Your task to perform on an android device: Go to Amazon Image 0: 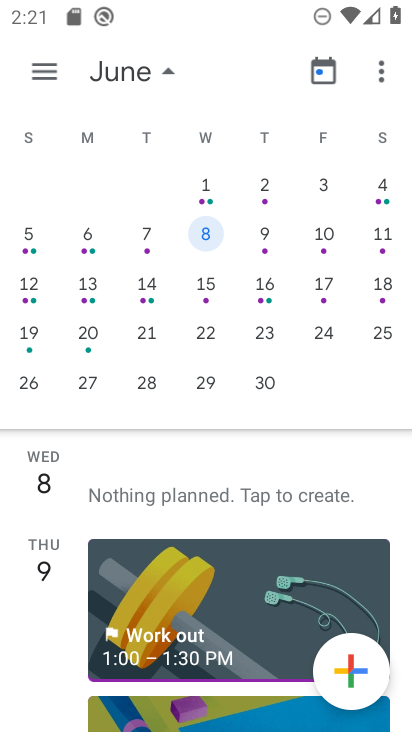
Step 0: drag from (332, 590) to (134, 28)
Your task to perform on an android device: Go to Amazon Image 1: 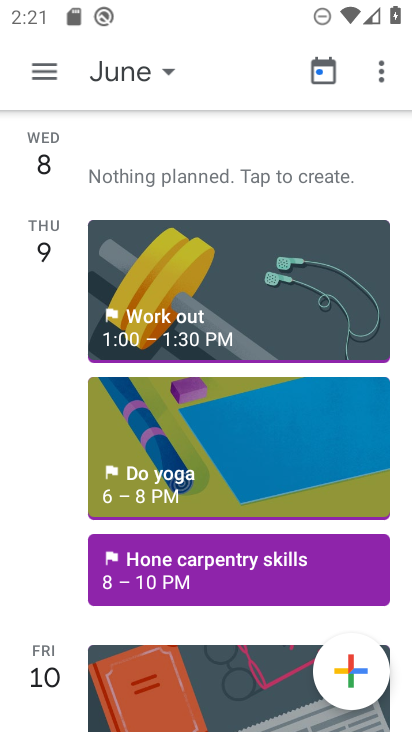
Step 1: press back button
Your task to perform on an android device: Go to Amazon Image 2: 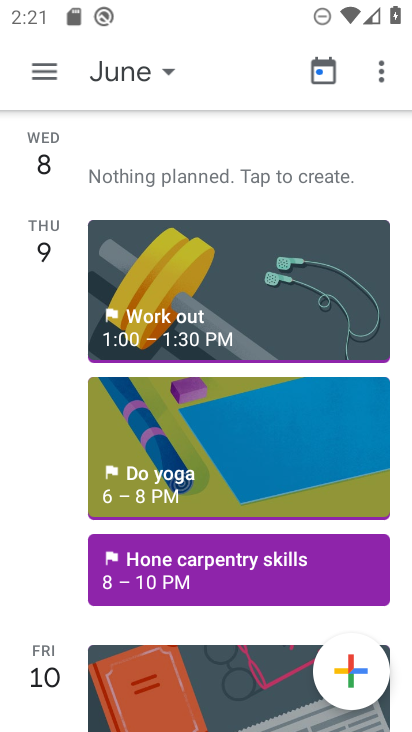
Step 2: press back button
Your task to perform on an android device: Go to Amazon Image 3: 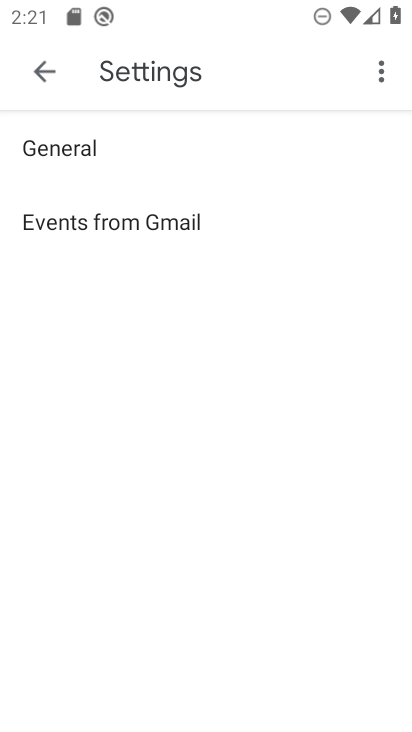
Step 3: press back button
Your task to perform on an android device: Go to Amazon Image 4: 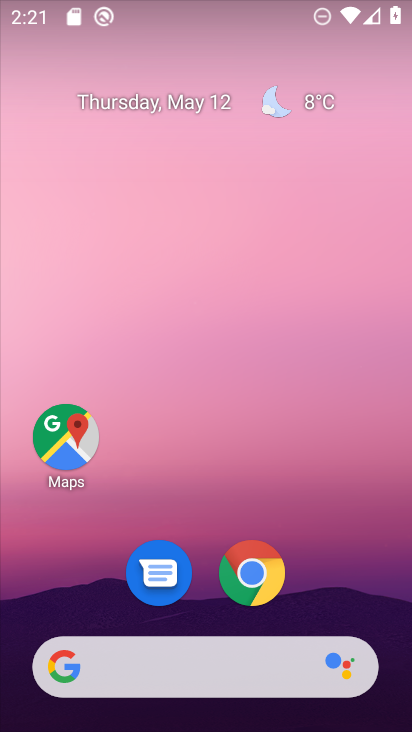
Step 4: drag from (363, 545) to (101, 34)
Your task to perform on an android device: Go to Amazon Image 5: 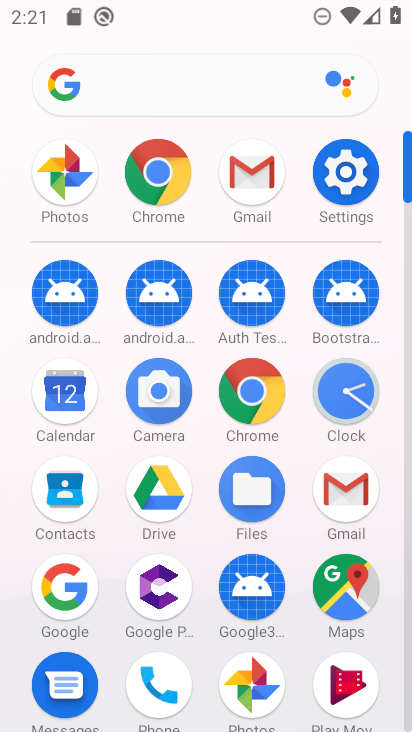
Step 5: click (145, 169)
Your task to perform on an android device: Go to Amazon Image 6: 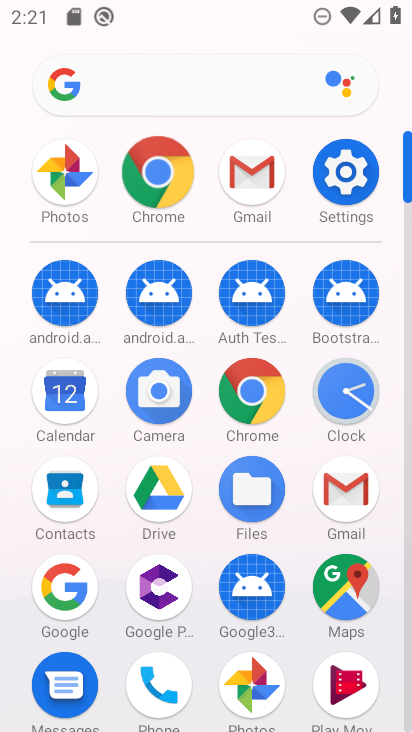
Step 6: click (147, 171)
Your task to perform on an android device: Go to Amazon Image 7: 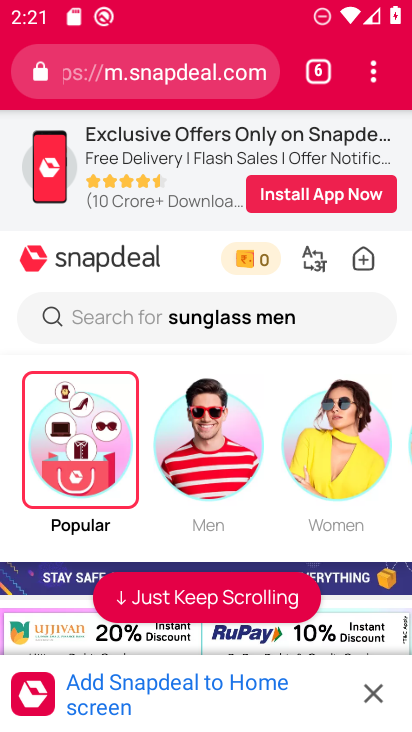
Step 7: drag from (371, 71) to (113, 148)
Your task to perform on an android device: Go to Amazon Image 8: 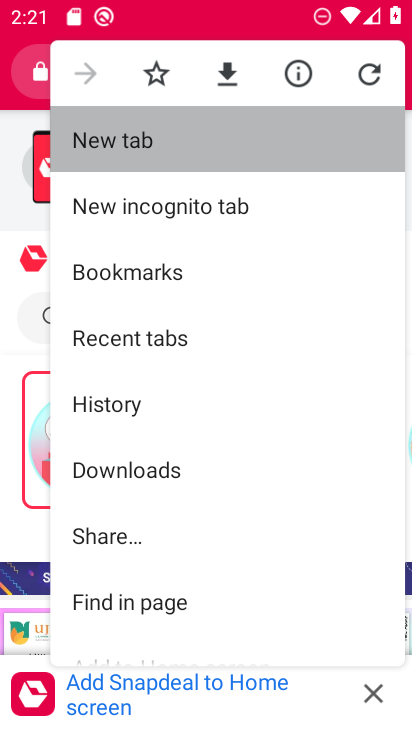
Step 8: click (105, 139)
Your task to perform on an android device: Go to Amazon Image 9: 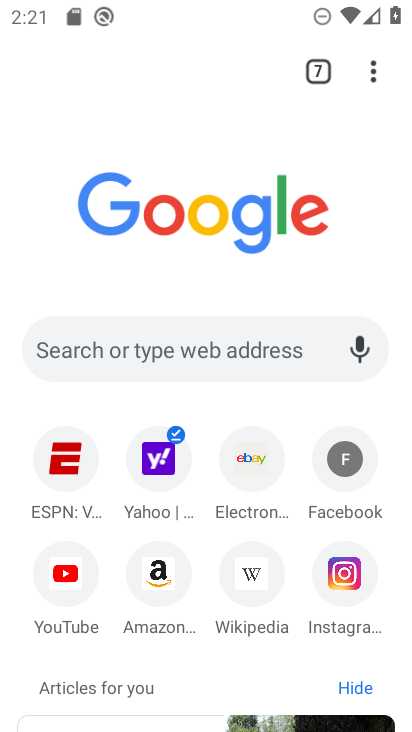
Step 9: click (161, 573)
Your task to perform on an android device: Go to Amazon Image 10: 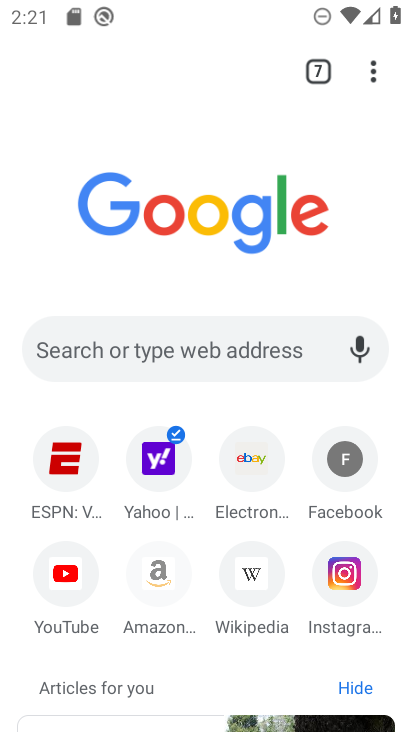
Step 10: click (159, 573)
Your task to perform on an android device: Go to Amazon Image 11: 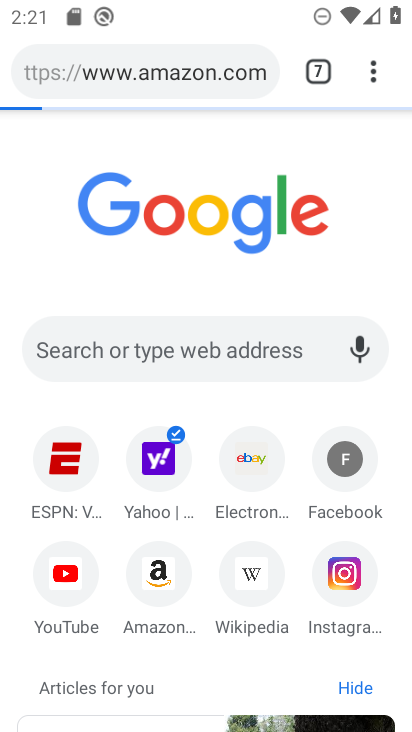
Step 11: click (153, 582)
Your task to perform on an android device: Go to Amazon Image 12: 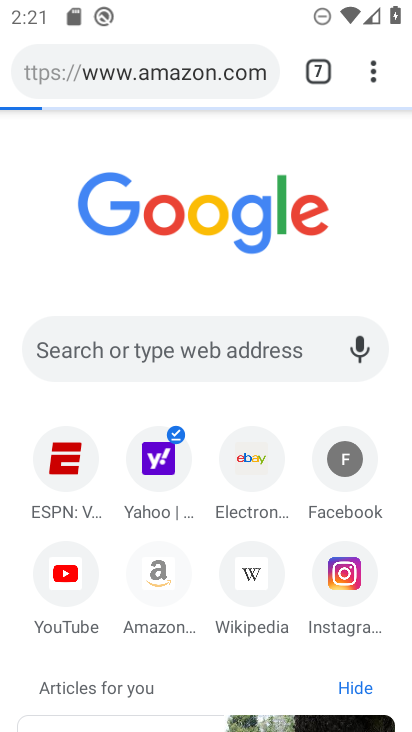
Step 12: click (153, 583)
Your task to perform on an android device: Go to Amazon Image 13: 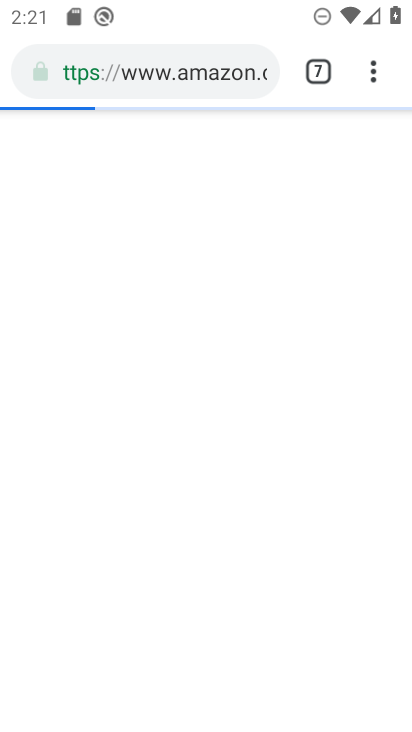
Step 13: click (152, 584)
Your task to perform on an android device: Go to Amazon Image 14: 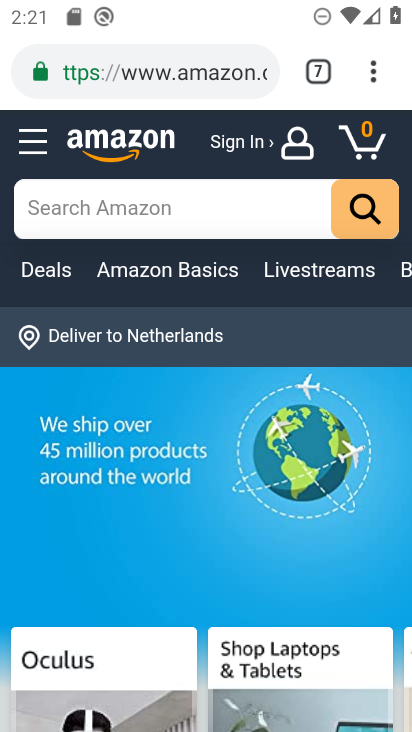
Step 14: task complete